Your task to perform on an android device: What is the news today? Image 0: 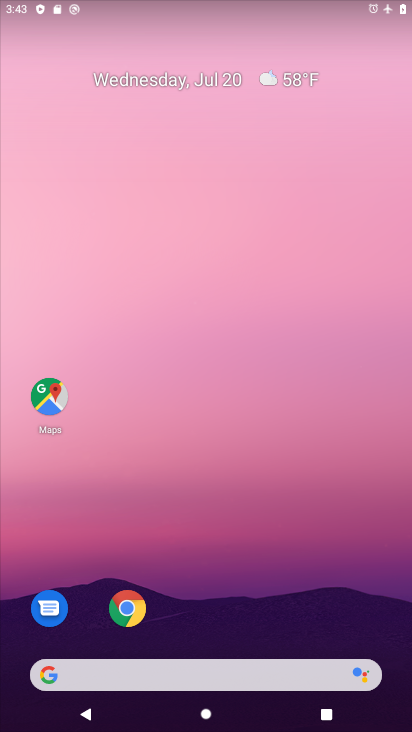
Step 0: drag from (220, 621) to (317, 39)
Your task to perform on an android device: What is the news today? Image 1: 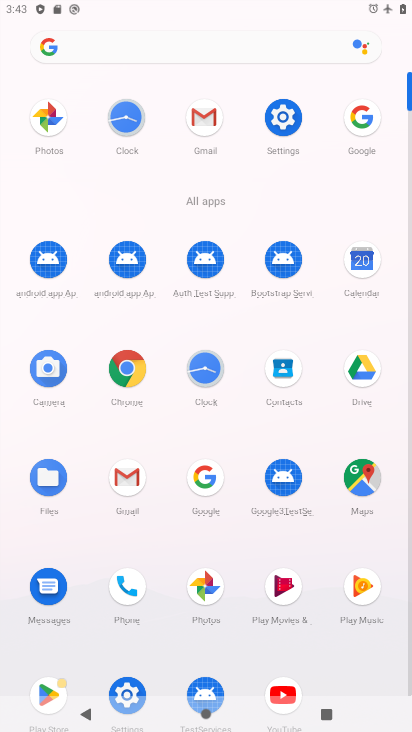
Step 1: click (208, 485)
Your task to perform on an android device: What is the news today? Image 2: 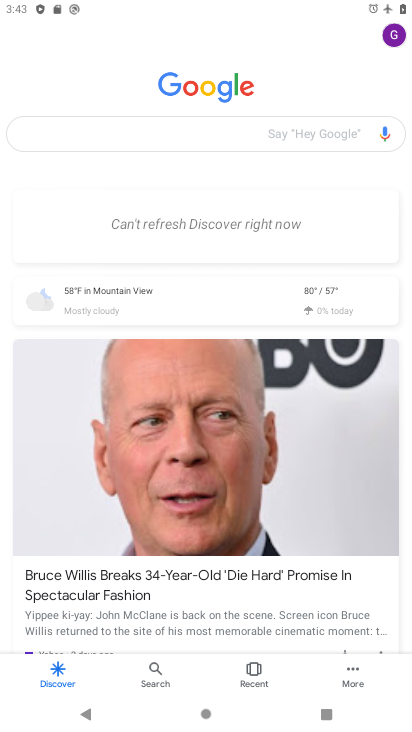
Step 2: click (194, 130)
Your task to perform on an android device: What is the news today? Image 3: 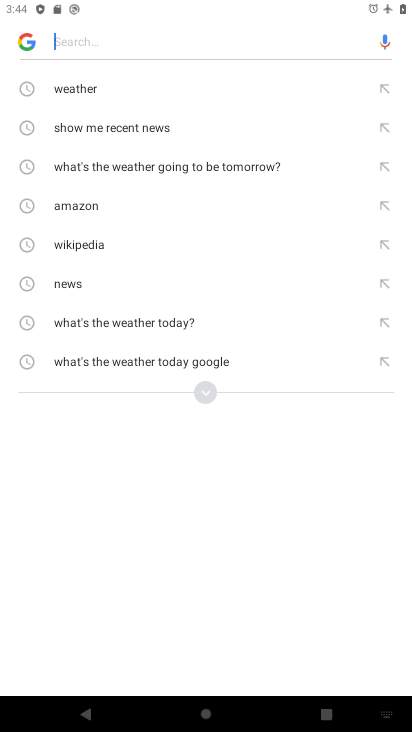
Step 3: type "news today"
Your task to perform on an android device: What is the news today? Image 4: 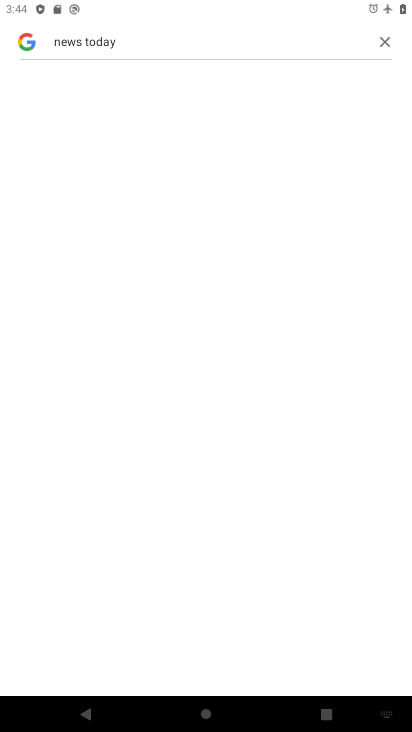
Step 4: click (385, 41)
Your task to perform on an android device: What is the news today? Image 5: 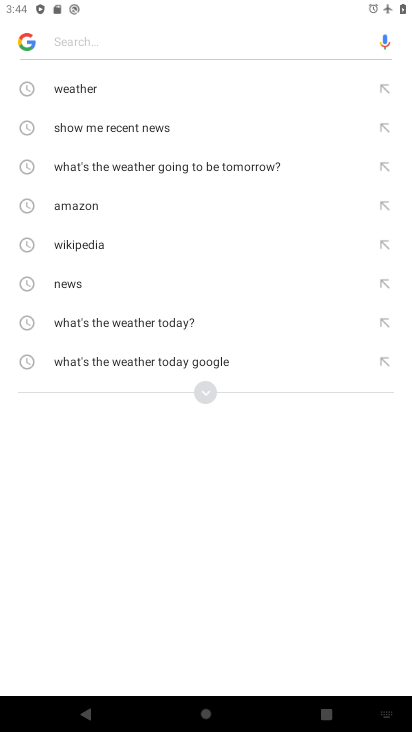
Step 5: click (66, 286)
Your task to perform on an android device: What is the news today? Image 6: 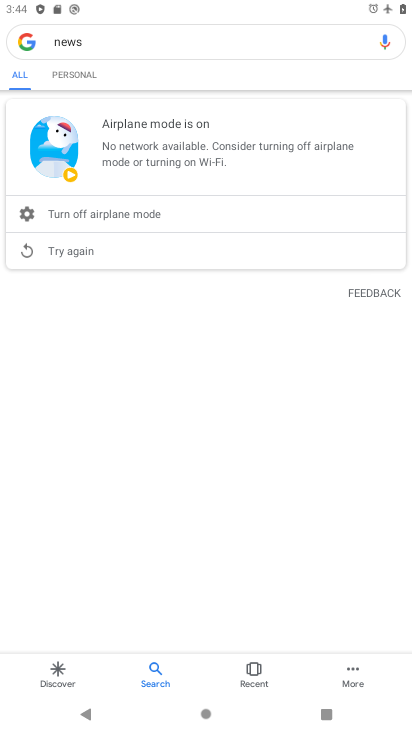
Step 6: task complete